Your task to perform on an android device: Open ESPN.com Image 0: 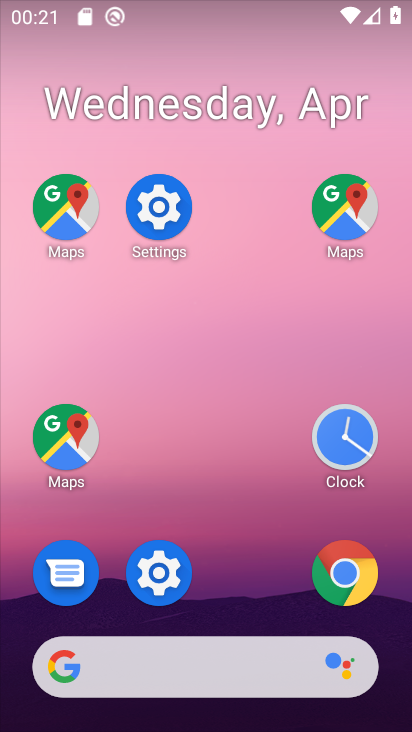
Step 0: drag from (208, 446) to (151, 89)
Your task to perform on an android device: Open ESPN.com Image 1: 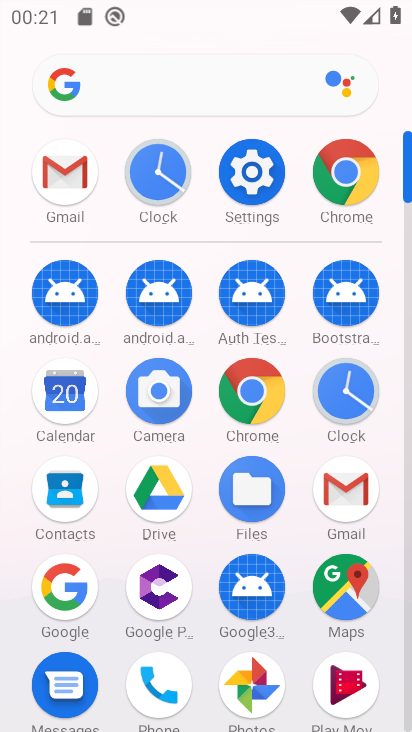
Step 1: click (352, 173)
Your task to perform on an android device: Open ESPN.com Image 2: 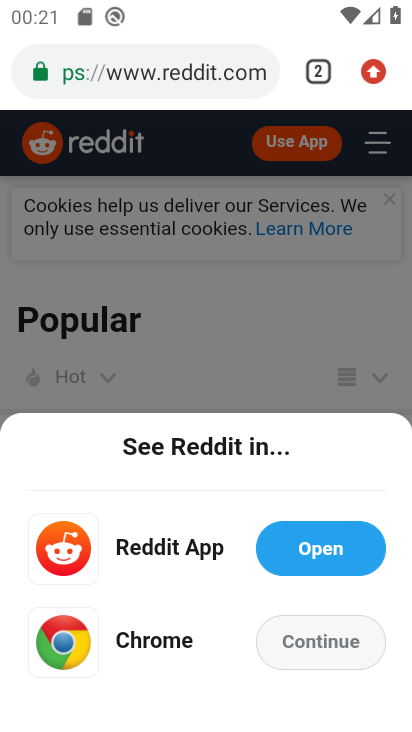
Step 2: press home button
Your task to perform on an android device: Open ESPN.com Image 3: 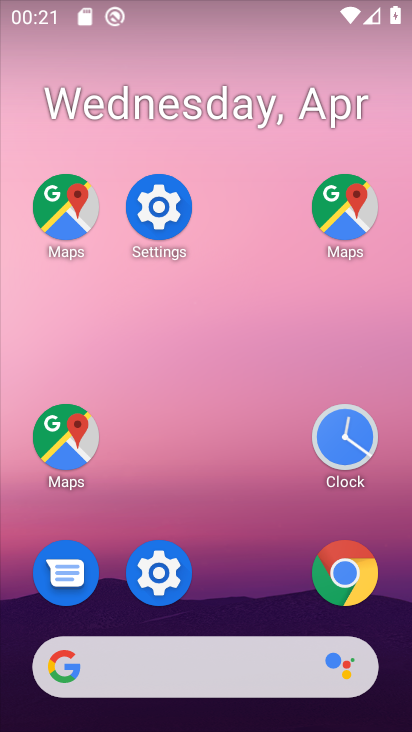
Step 3: click (338, 566)
Your task to perform on an android device: Open ESPN.com Image 4: 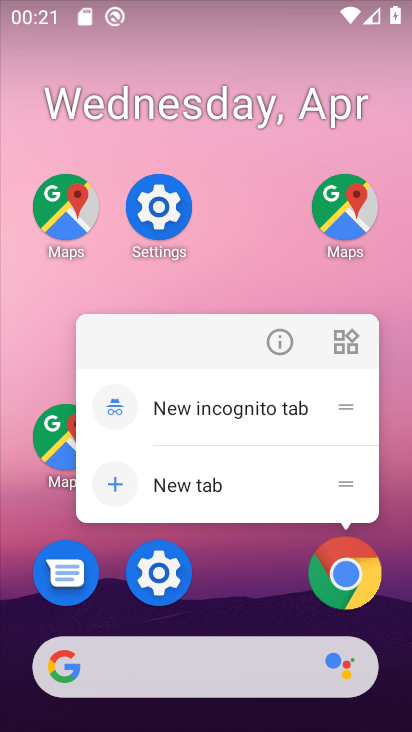
Step 4: click (338, 566)
Your task to perform on an android device: Open ESPN.com Image 5: 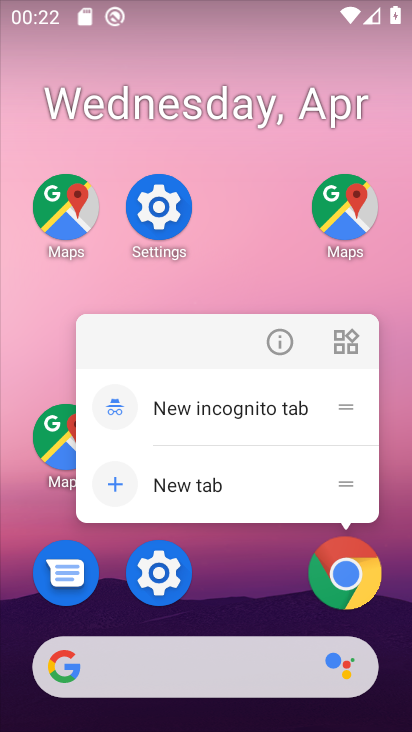
Step 5: click (340, 568)
Your task to perform on an android device: Open ESPN.com Image 6: 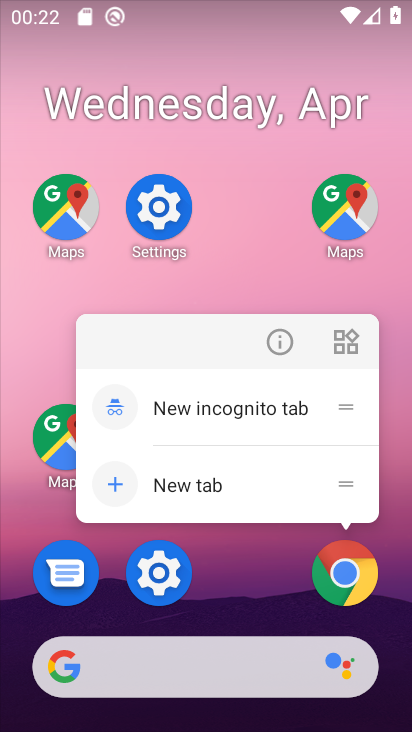
Step 6: drag from (392, 680) to (201, 93)
Your task to perform on an android device: Open ESPN.com Image 7: 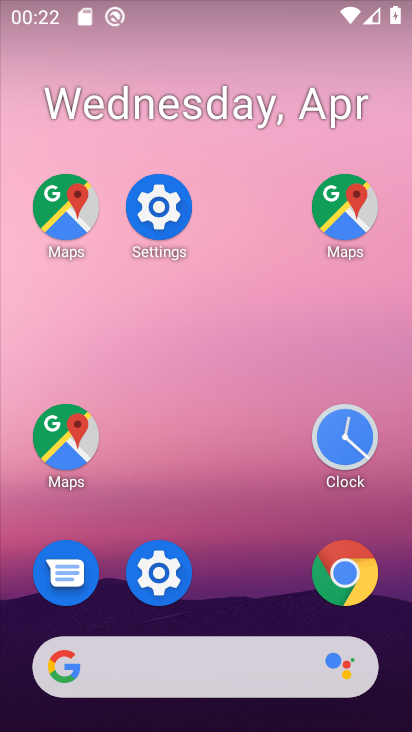
Step 7: drag from (239, 660) to (3, 71)
Your task to perform on an android device: Open ESPN.com Image 8: 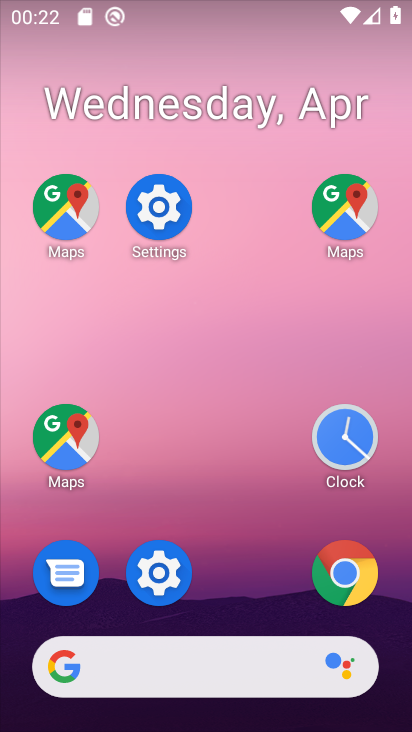
Step 8: drag from (268, 553) to (15, 96)
Your task to perform on an android device: Open ESPN.com Image 9: 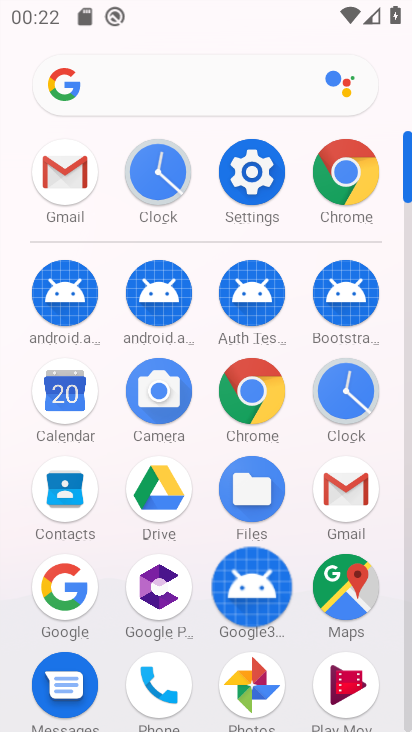
Step 9: drag from (234, 393) to (216, 335)
Your task to perform on an android device: Open ESPN.com Image 10: 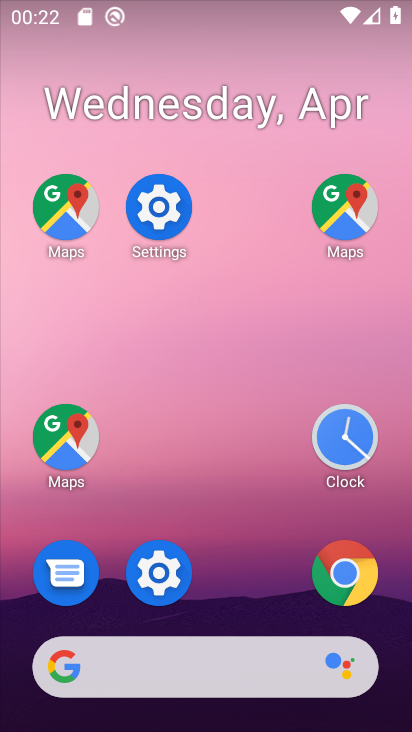
Step 10: drag from (265, 593) to (53, 160)
Your task to perform on an android device: Open ESPN.com Image 11: 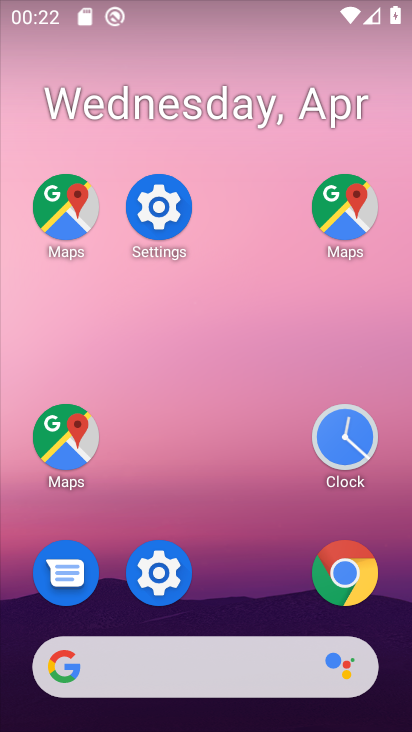
Step 11: drag from (313, 530) to (124, 97)
Your task to perform on an android device: Open ESPN.com Image 12: 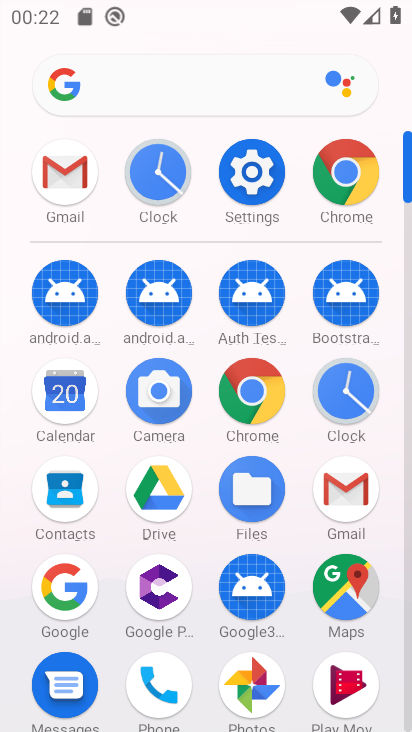
Step 12: click (344, 167)
Your task to perform on an android device: Open ESPN.com Image 13: 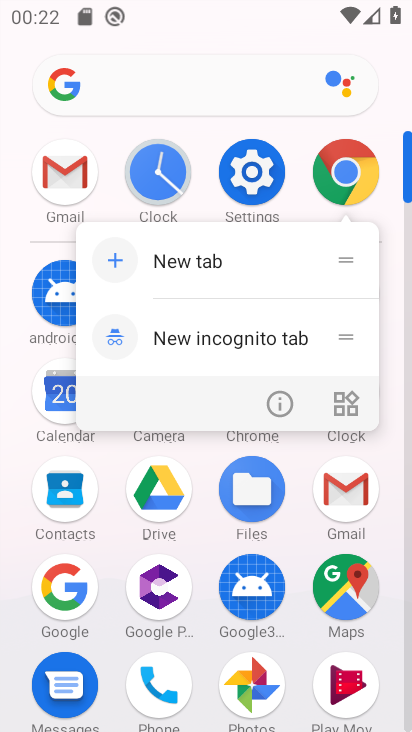
Step 13: click (344, 167)
Your task to perform on an android device: Open ESPN.com Image 14: 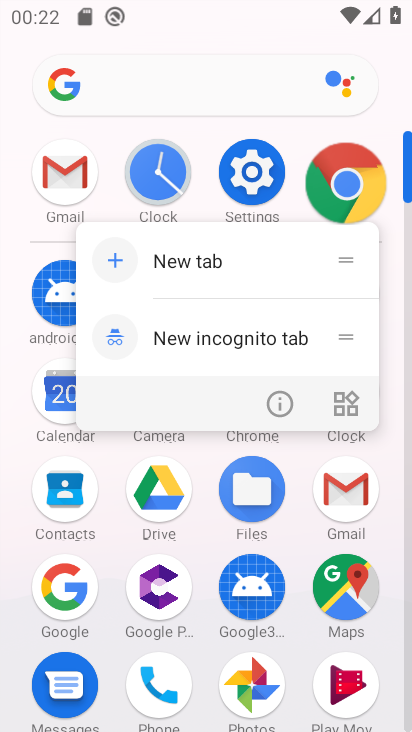
Step 14: click (344, 178)
Your task to perform on an android device: Open ESPN.com Image 15: 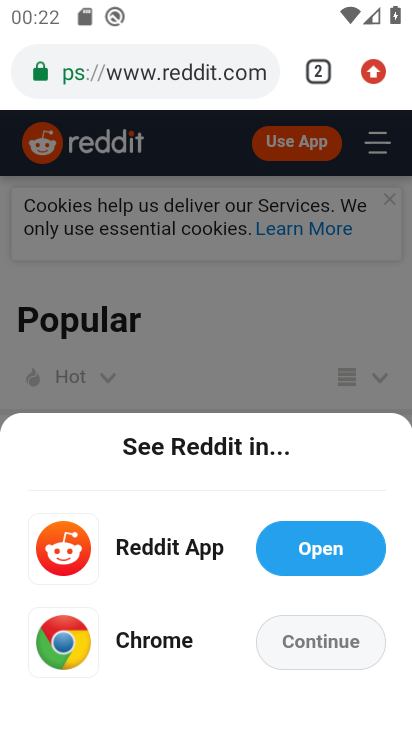
Step 15: drag from (371, 70) to (109, 226)
Your task to perform on an android device: Open ESPN.com Image 16: 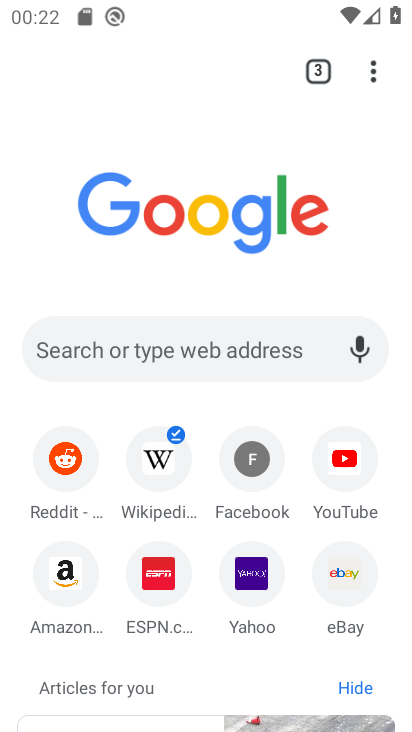
Step 16: click (147, 577)
Your task to perform on an android device: Open ESPN.com Image 17: 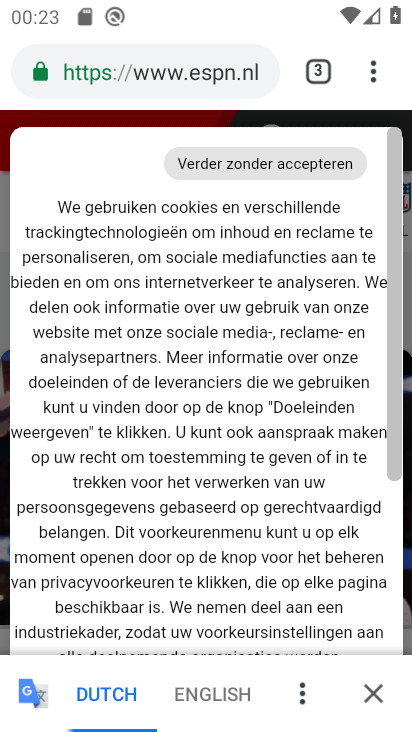
Step 17: task complete